Your task to perform on an android device: turn off translation in the chrome app Image 0: 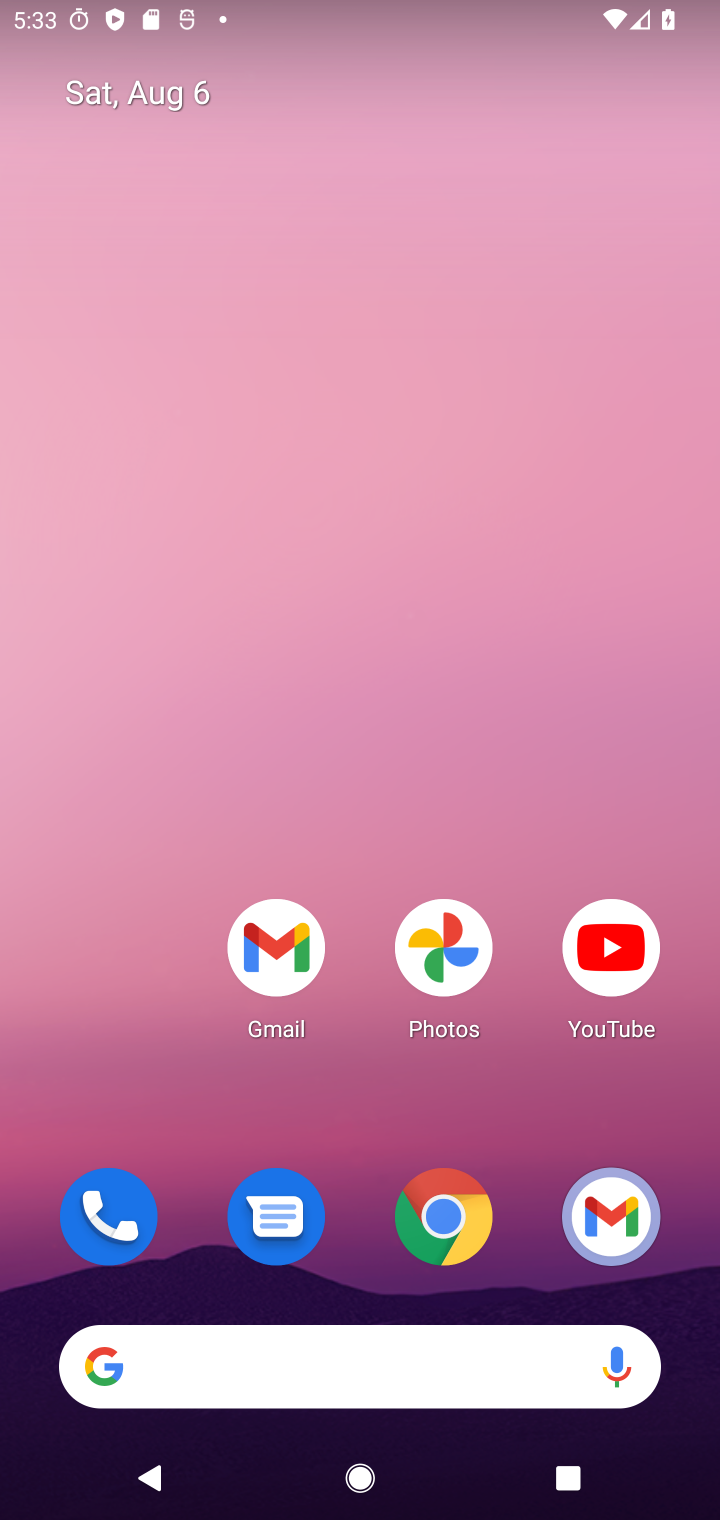
Step 0: drag from (370, 1100) to (377, 347)
Your task to perform on an android device: turn off translation in the chrome app Image 1: 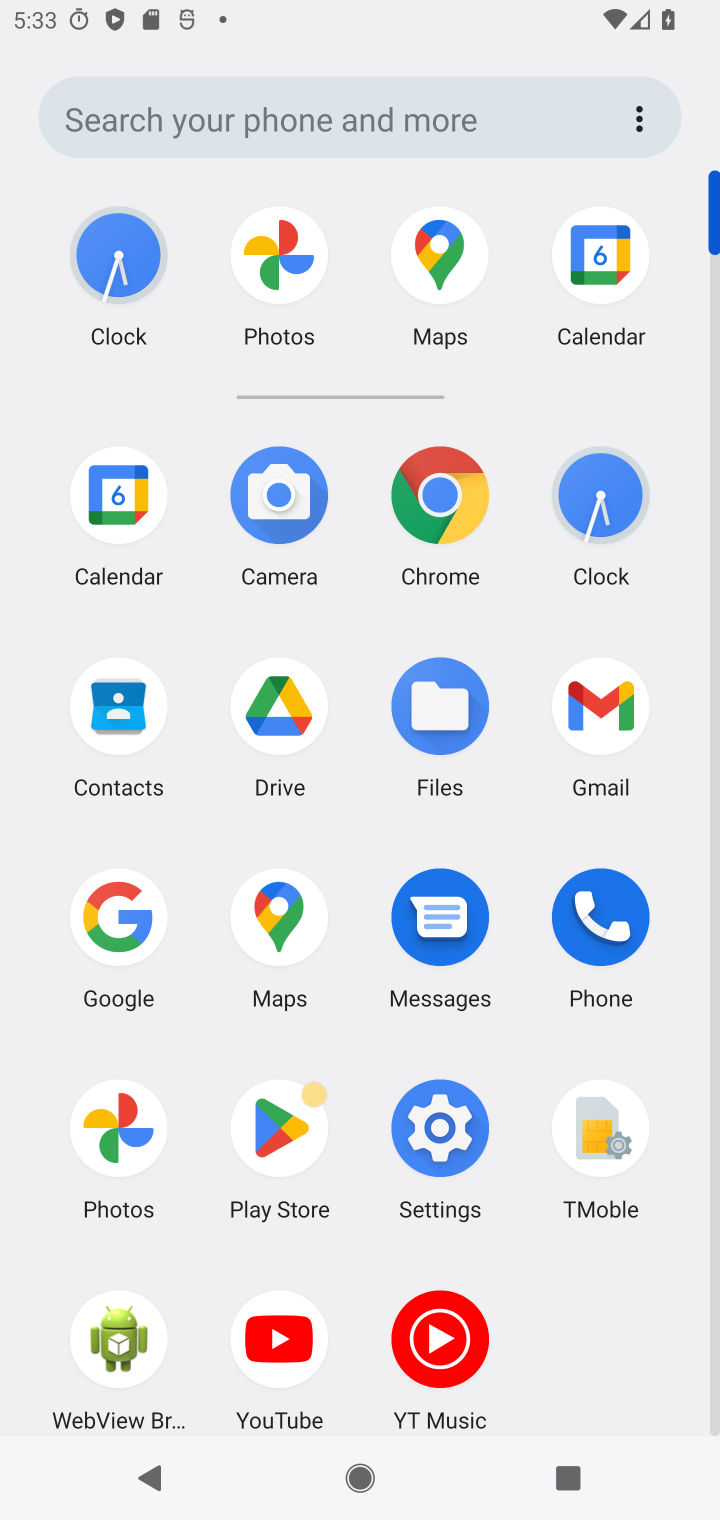
Step 1: click (449, 491)
Your task to perform on an android device: turn off translation in the chrome app Image 2: 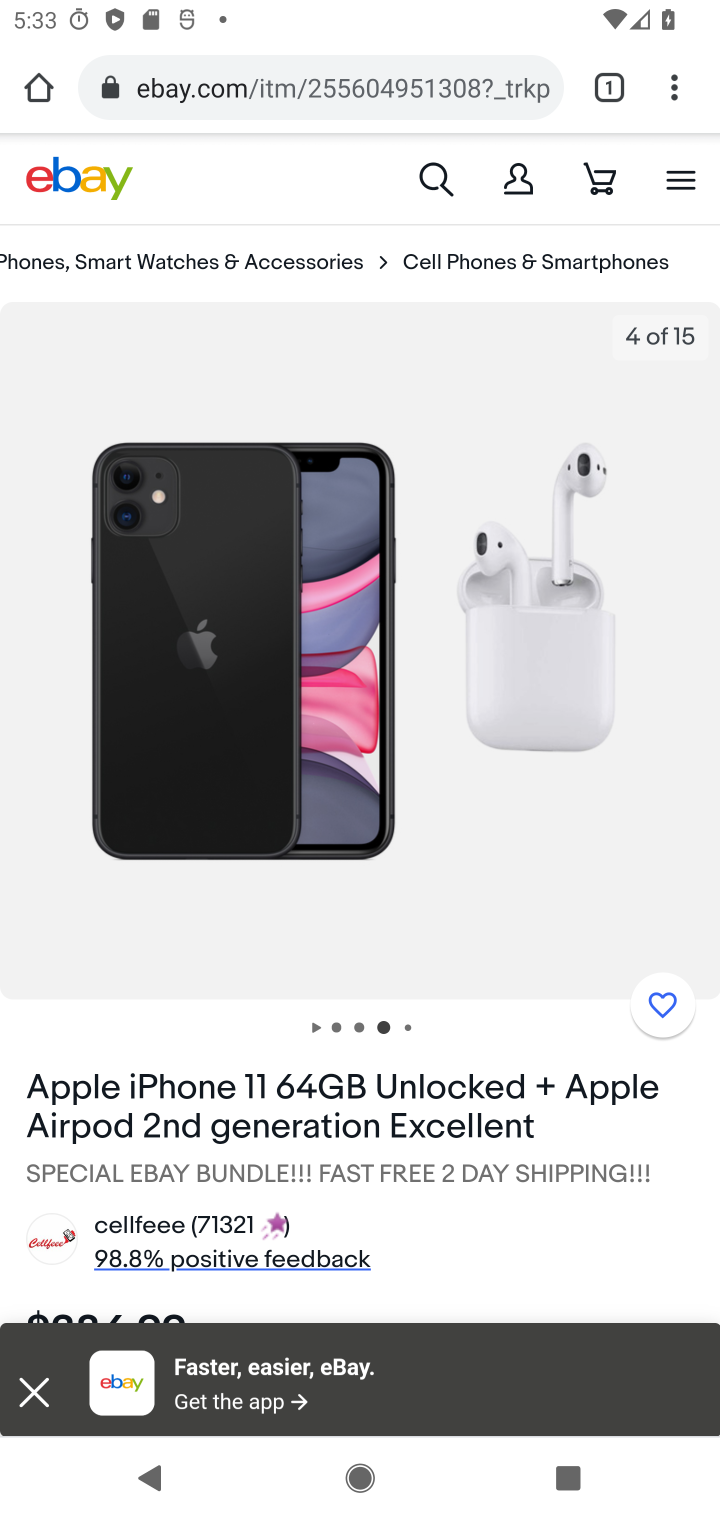
Step 2: drag from (699, 68) to (460, 1088)
Your task to perform on an android device: turn off translation in the chrome app Image 3: 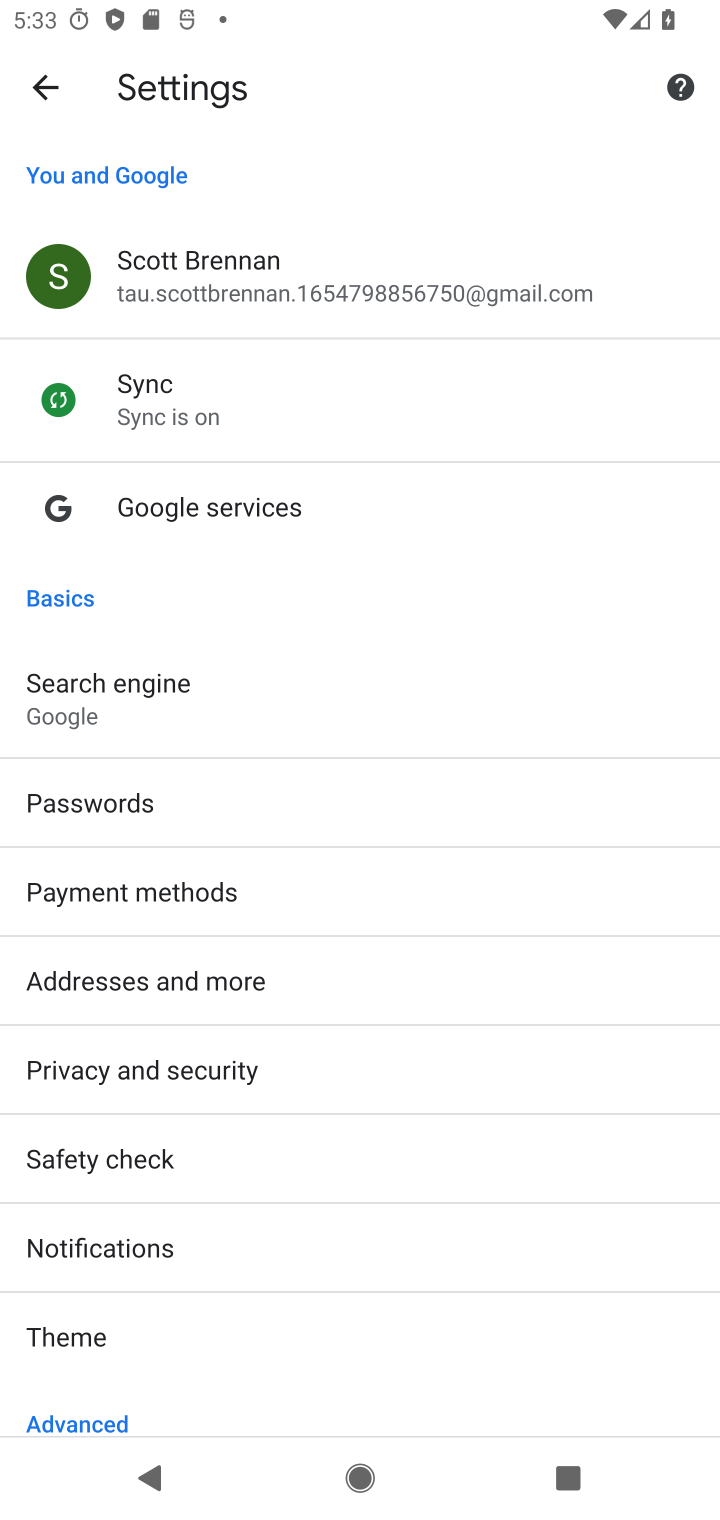
Step 3: drag from (391, 1356) to (475, 637)
Your task to perform on an android device: turn off translation in the chrome app Image 4: 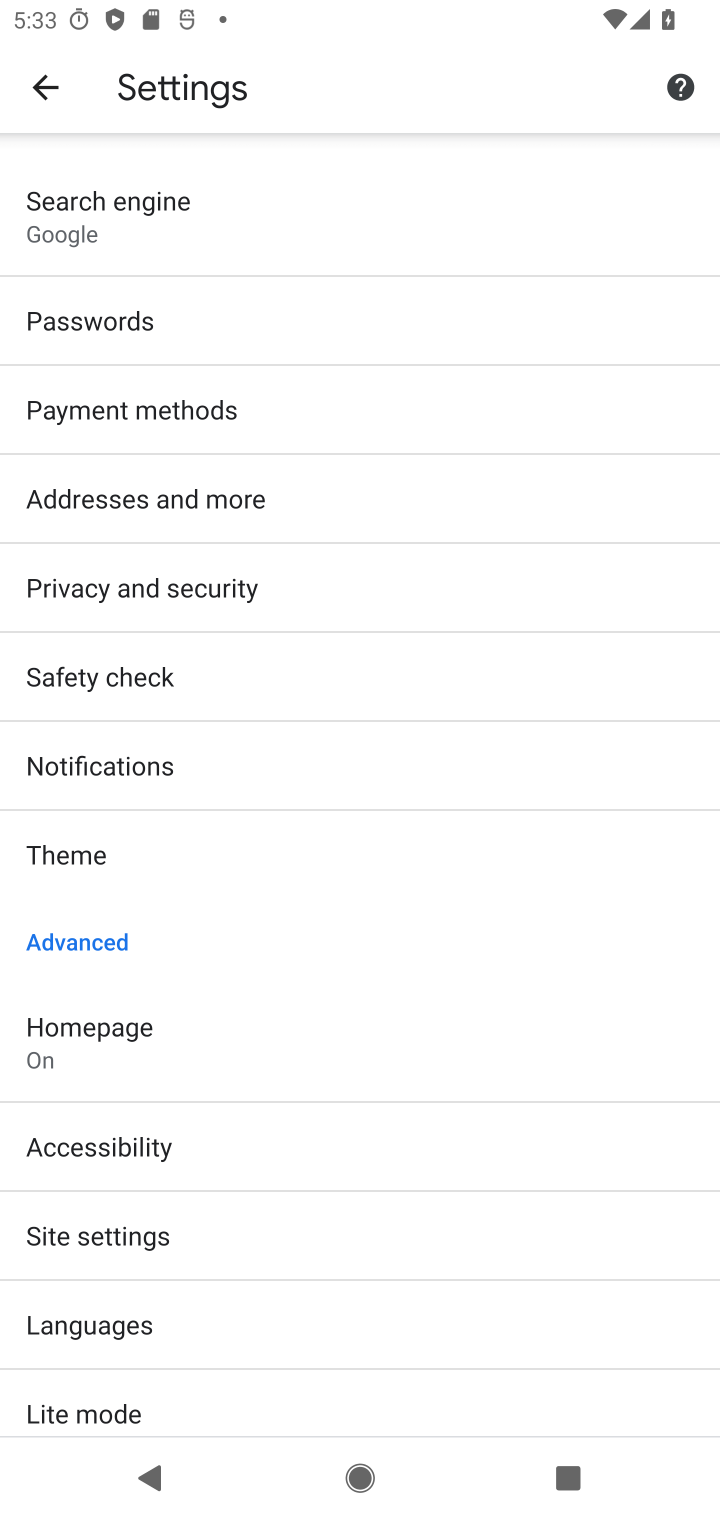
Step 4: click (107, 1327)
Your task to perform on an android device: turn off translation in the chrome app Image 5: 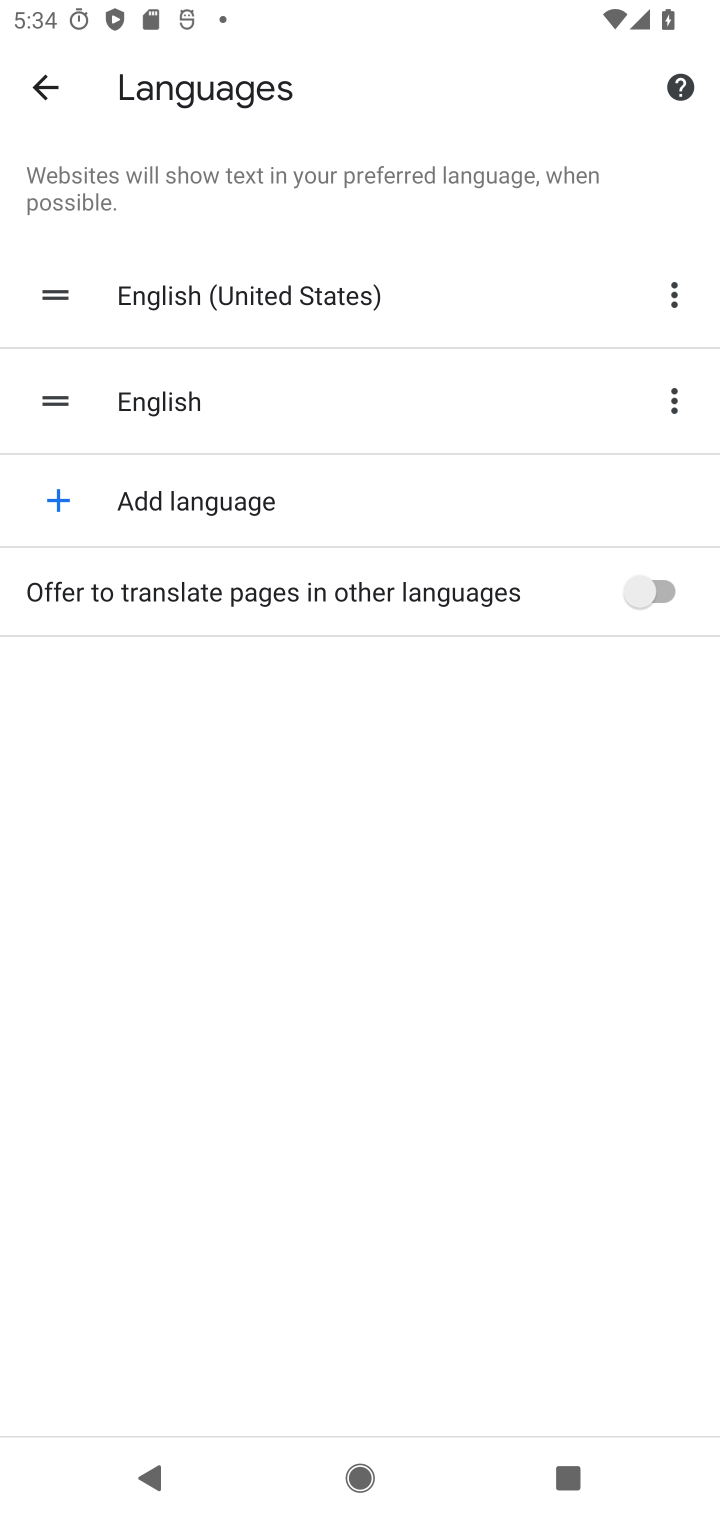
Step 5: task complete